Your task to perform on an android device: open a bookmark in the chrome app Image 0: 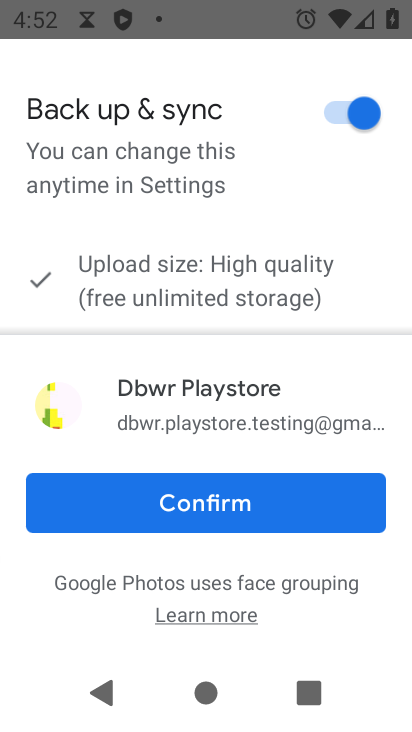
Step 0: press home button
Your task to perform on an android device: open a bookmark in the chrome app Image 1: 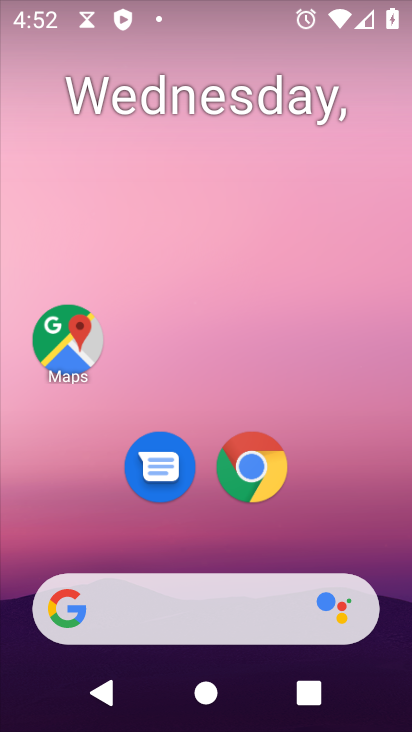
Step 1: click (268, 459)
Your task to perform on an android device: open a bookmark in the chrome app Image 2: 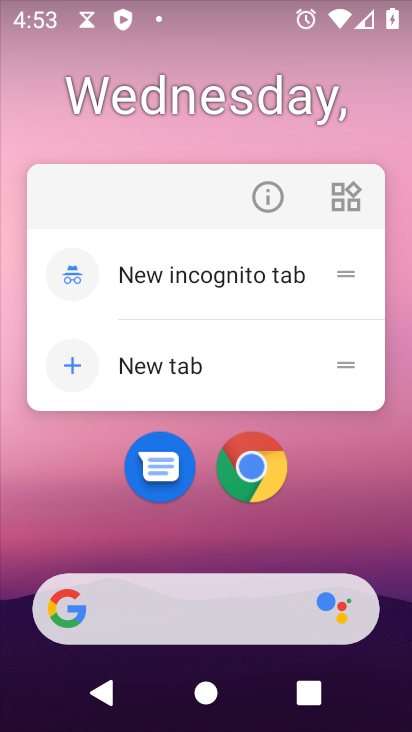
Step 2: click (259, 475)
Your task to perform on an android device: open a bookmark in the chrome app Image 3: 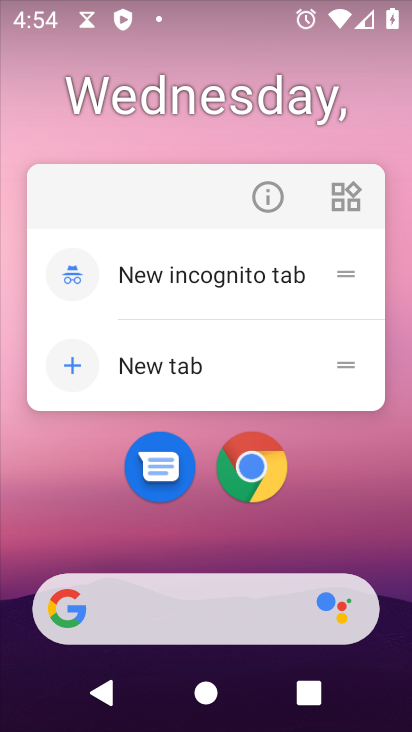
Step 3: click (237, 473)
Your task to perform on an android device: open a bookmark in the chrome app Image 4: 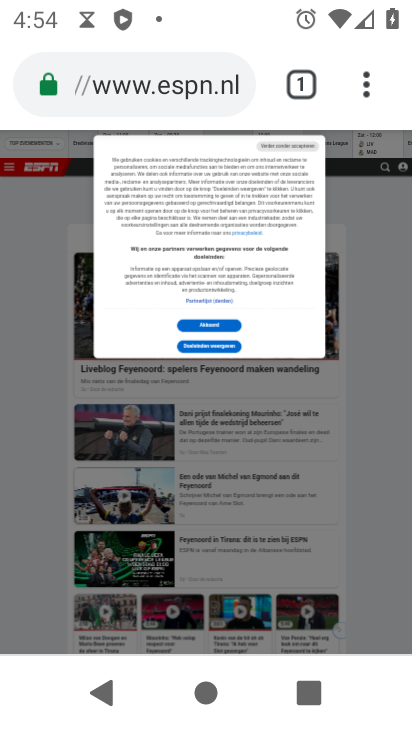
Step 4: drag from (376, 88) to (111, 332)
Your task to perform on an android device: open a bookmark in the chrome app Image 5: 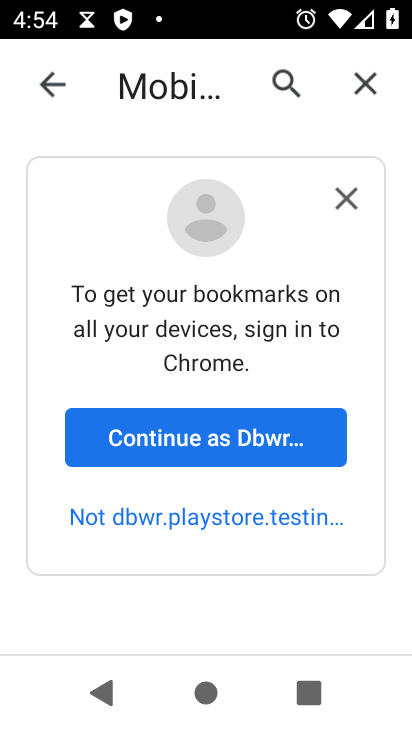
Step 5: click (198, 430)
Your task to perform on an android device: open a bookmark in the chrome app Image 6: 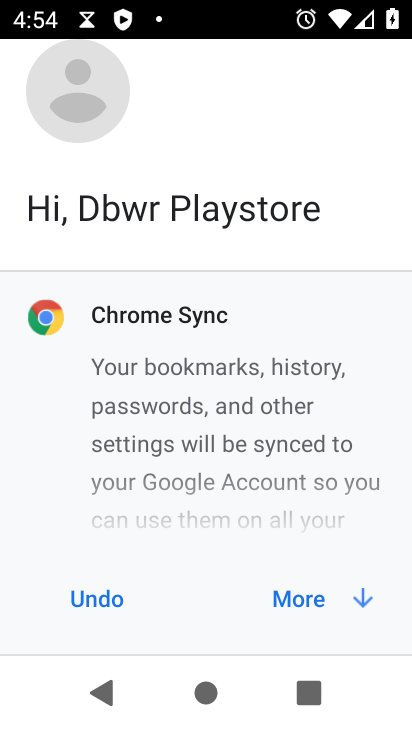
Step 6: click (291, 574)
Your task to perform on an android device: open a bookmark in the chrome app Image 7: 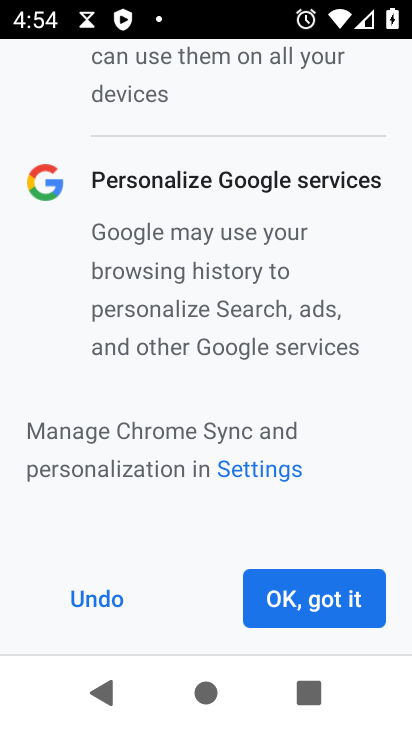
Step 7: click (306, 594)
Your task to perform on an android device: open a bookmark in the chrome app Image 8: 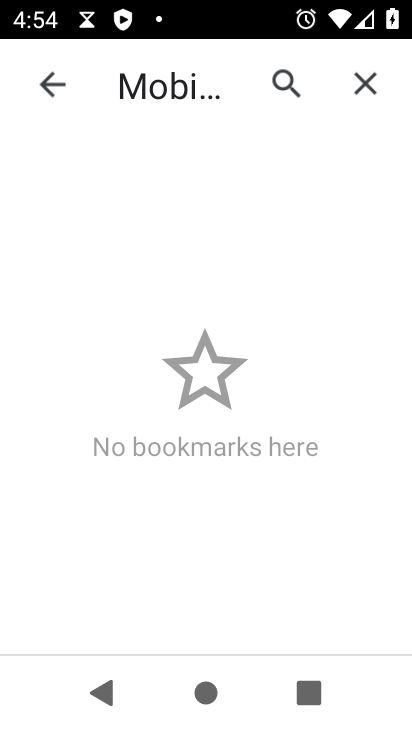
Step 8: task complete